Your task to perform on an android device: Open Chrome and go to settings Image 0: 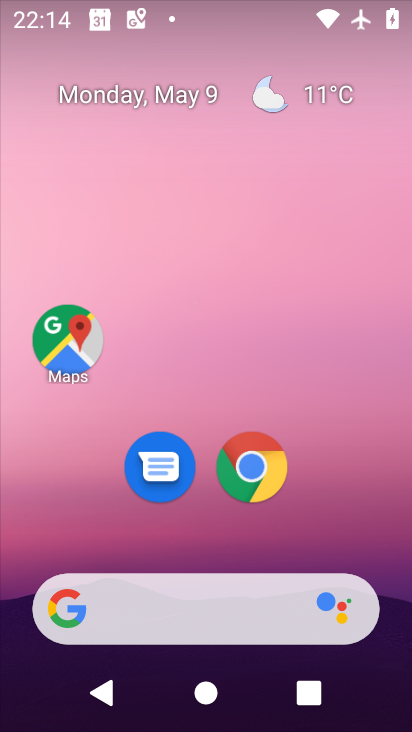
Step 0: drag from (306, 523) to (336, 264)
Your task to perform on an android device: Open Chrome and go to settings Image 1: 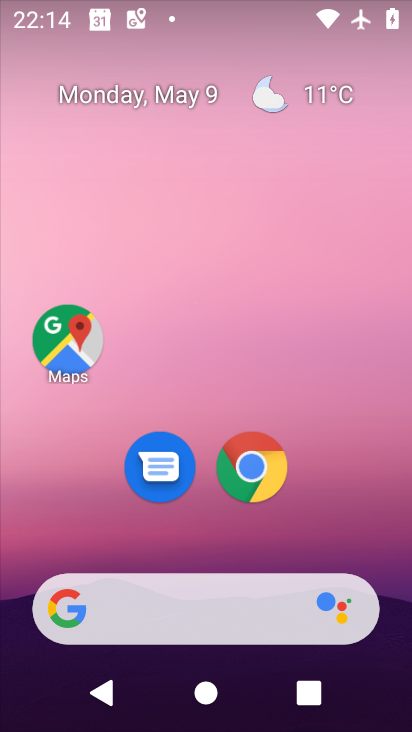
Step 1: drag from (300, 514) to (309, 181)
Your task to perform on an android device: Open Chrome and go to settings Image 2: 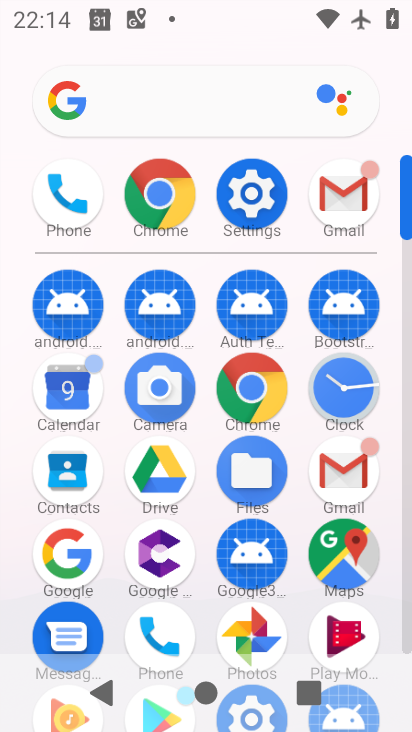
Step 2: click (246, 402)
Your task to perform on an android device: Open Chrome and go to settings Image 3: 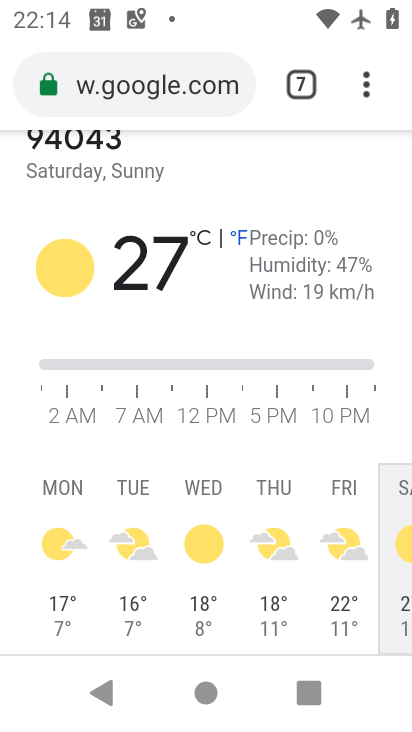
Step 3: click (365, 86)
Your task to perform on an android device: Open Chrome and go to settings Image 4: 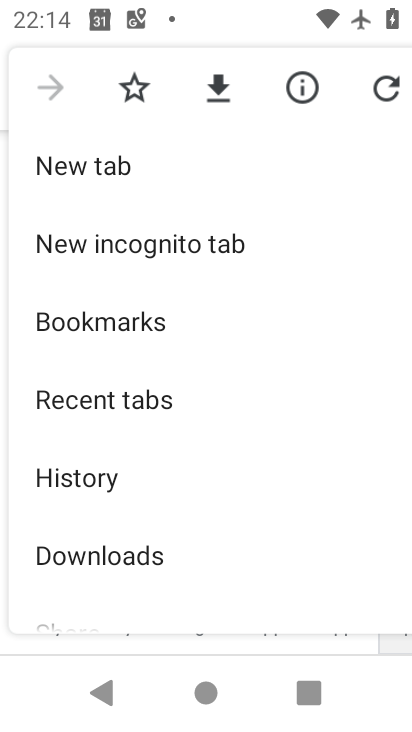
Step 4: drag from (141, 555) to (192, 261)
Your task to perform on an android device: Open Chrome and go to settings Image 5: 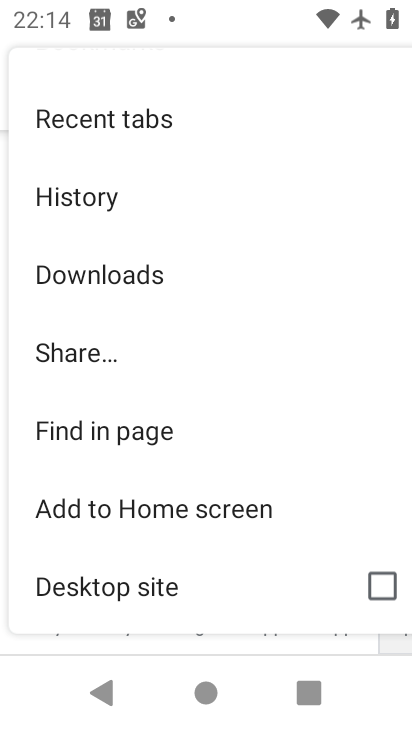
Step 5: drag from (126, 543) to (221, 248)
Your task to perform on an android device: Open Chrome and go to settings Image 6: 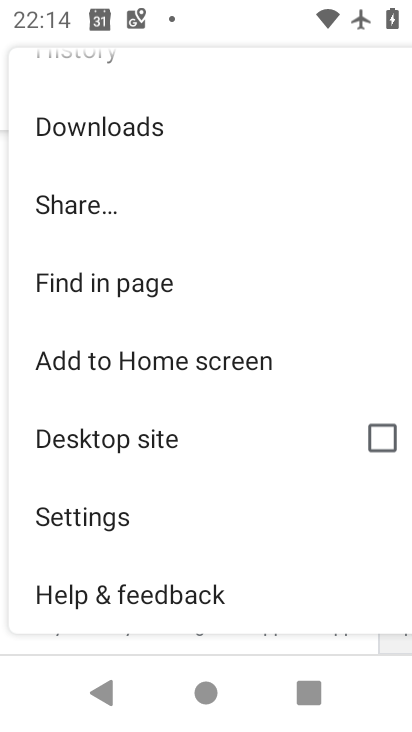
Step 6: click (128, 495)
Your task to perform on an android device: Open Chrome and go to settings Image 7: 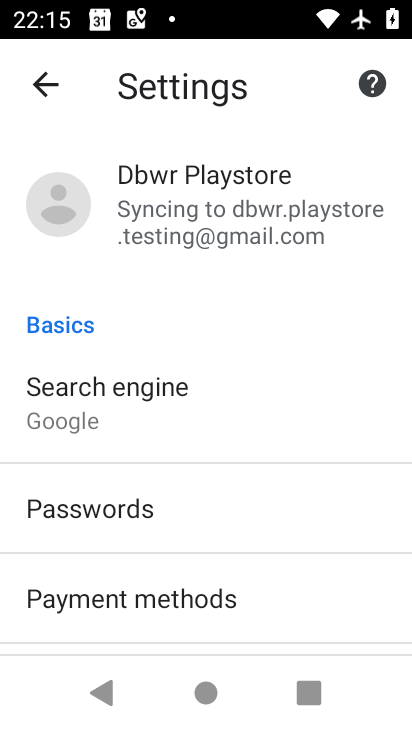
Step 7: task complete